Your task to perform on an android device: turn off location Image 0: 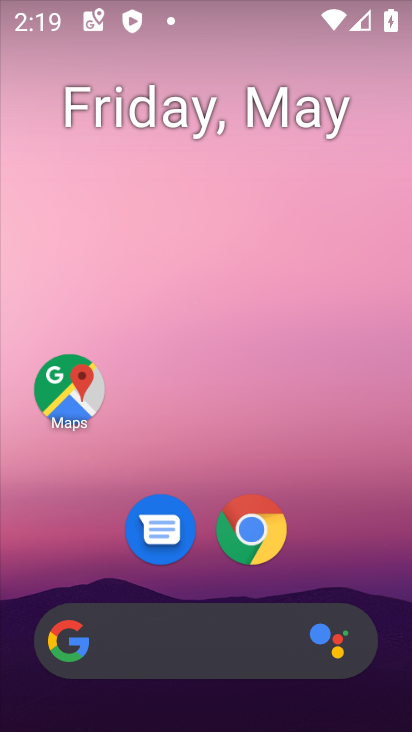
Step 0: drag from (322, 571) to (320, 196)
Your task to perform on an android device: turn off location Image 1: 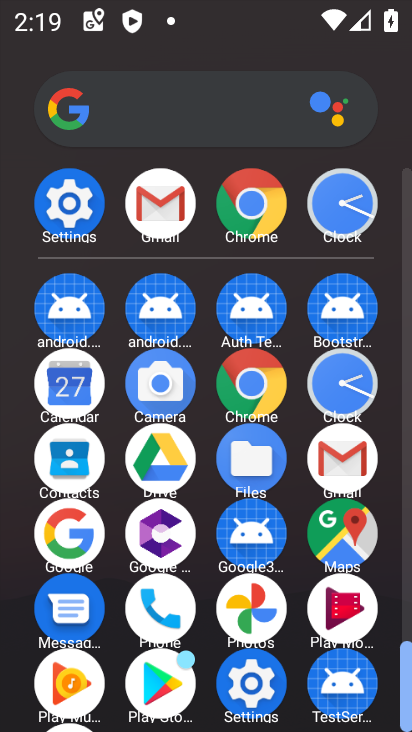
Step 1: click (78, 193)
Your task to perform on an android device: turn off location Image 2: 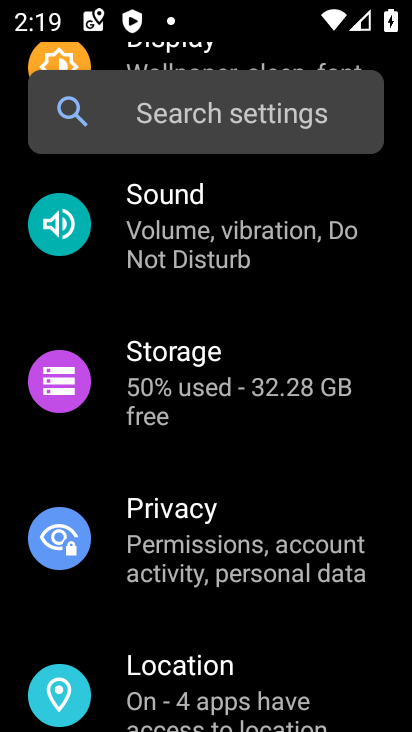
Step 2: click (252, 676)
Your task to perform on an android device: turn off location Image 3: 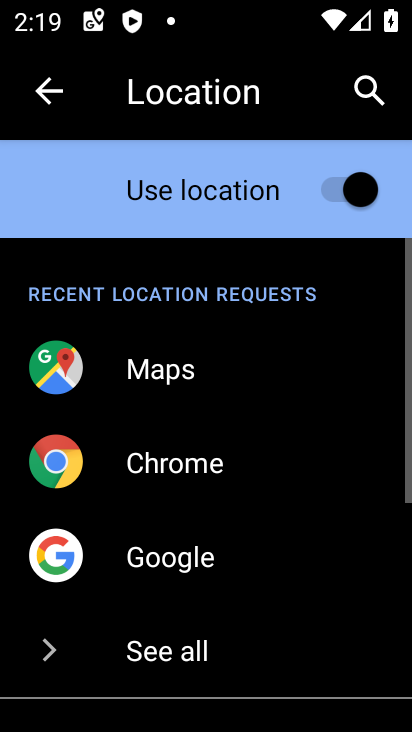
Step 3: click (339, 181)
Your task to perform on an android device: turn off location Image 4: 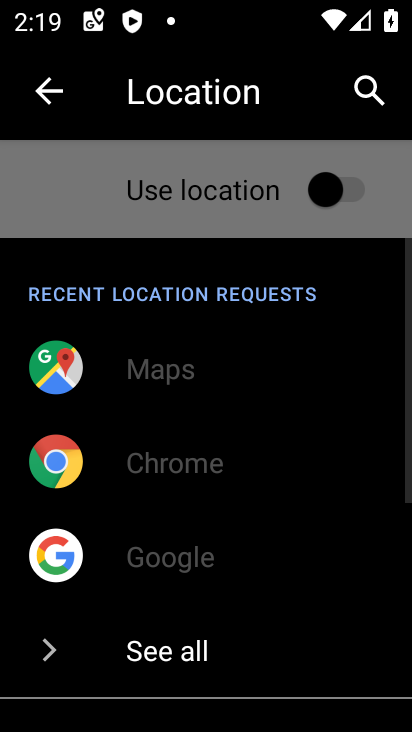
Step 4: task complete